Your task to perform on an android device: open device folders in google photos Image 0: 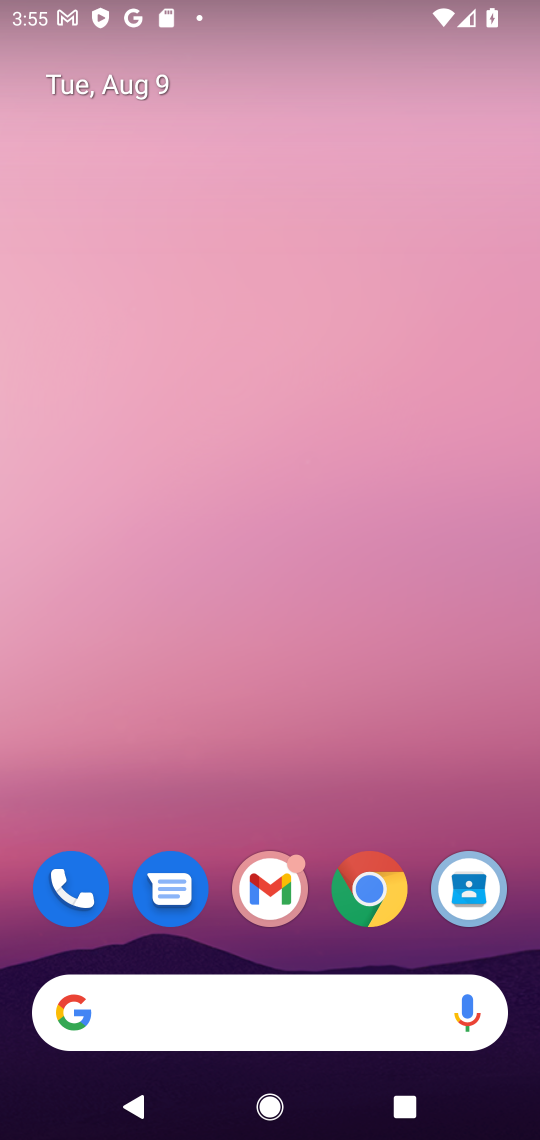
Step 0: drag from (278, 760) to (305, 0)
Your task to perform on an android device: open device folders in google photos Image 1: 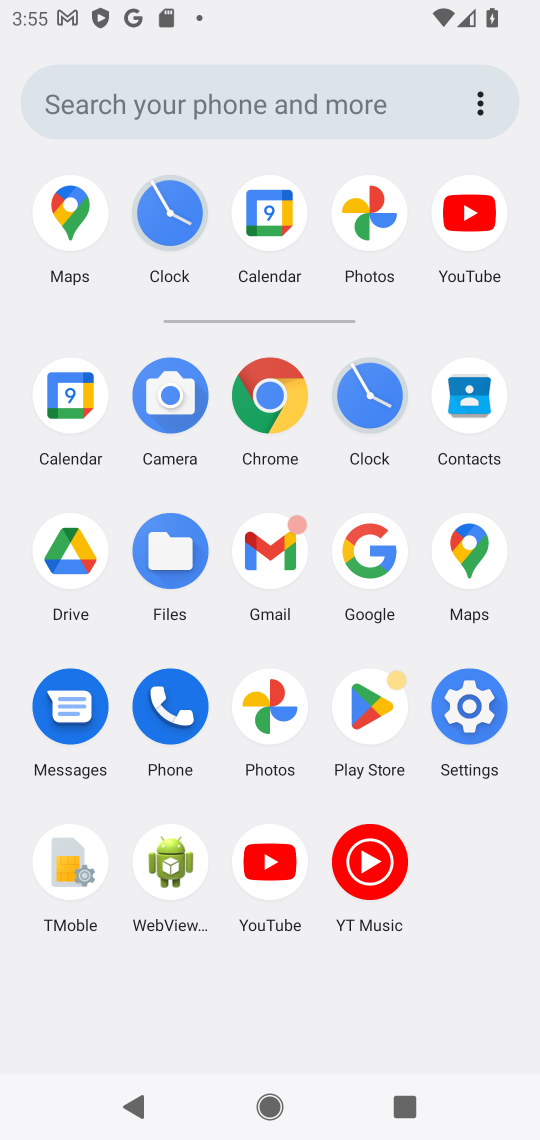
Step 1: click (365, 200)
Your task to perform on an android device: open device folders in google photos Image 2: 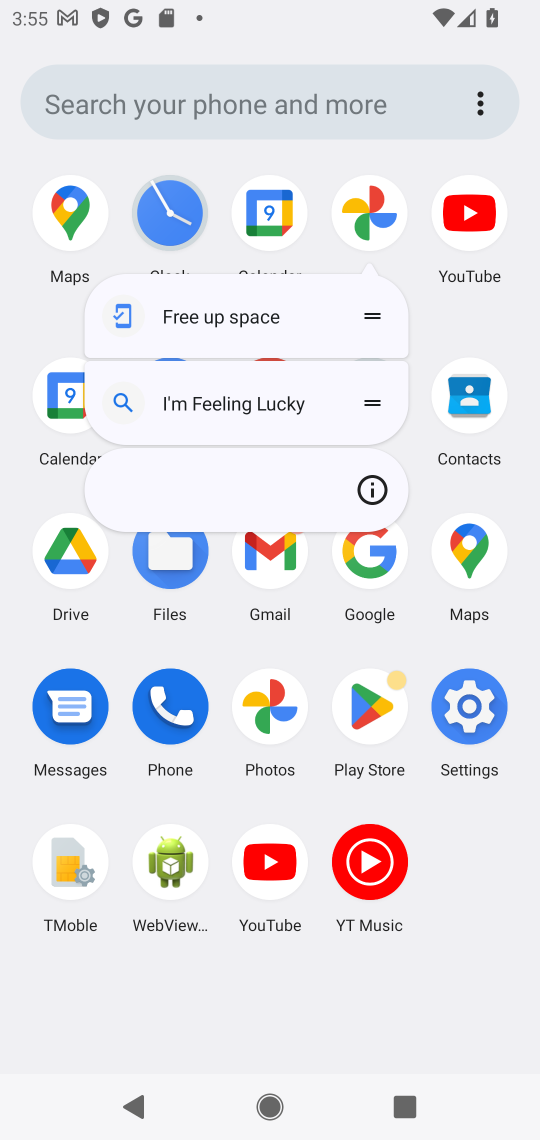
Step 2: click (365, 197)
Your task to perform on an android device: open device folders in google photos Image 3: 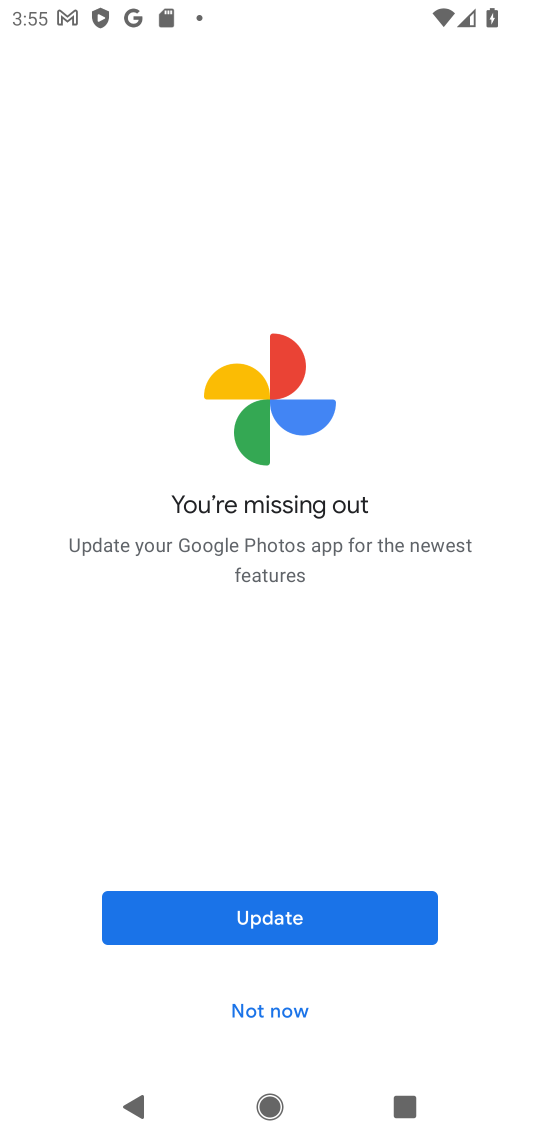
Step 3: click (287, 1005)
Your task to perform on an android device: open device folders in google photos Image 4: 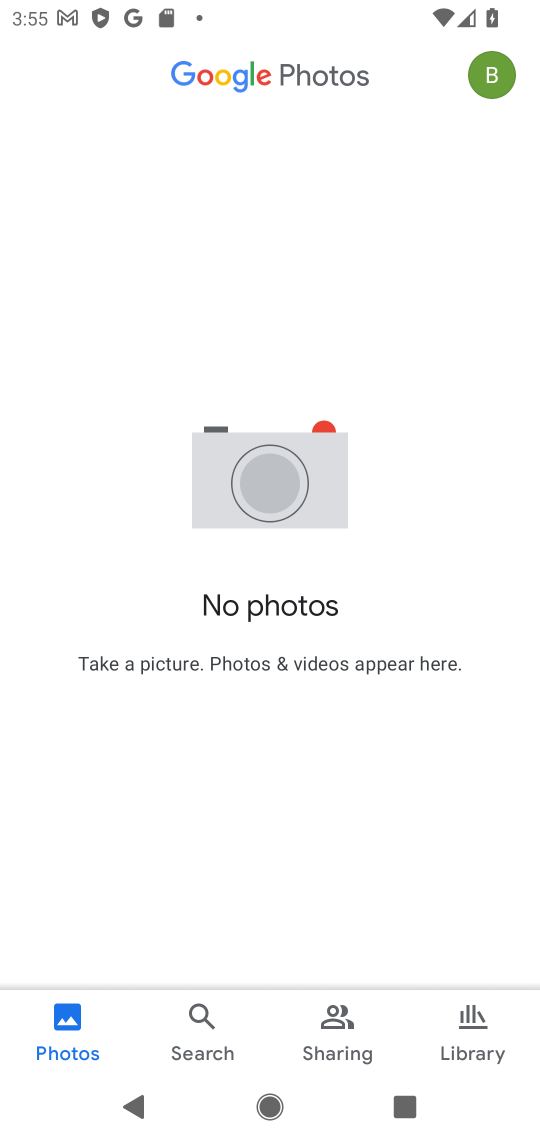
Step 4: click (500, 77)
Your task to perform on an android device: open device folders in google photos Image 5: 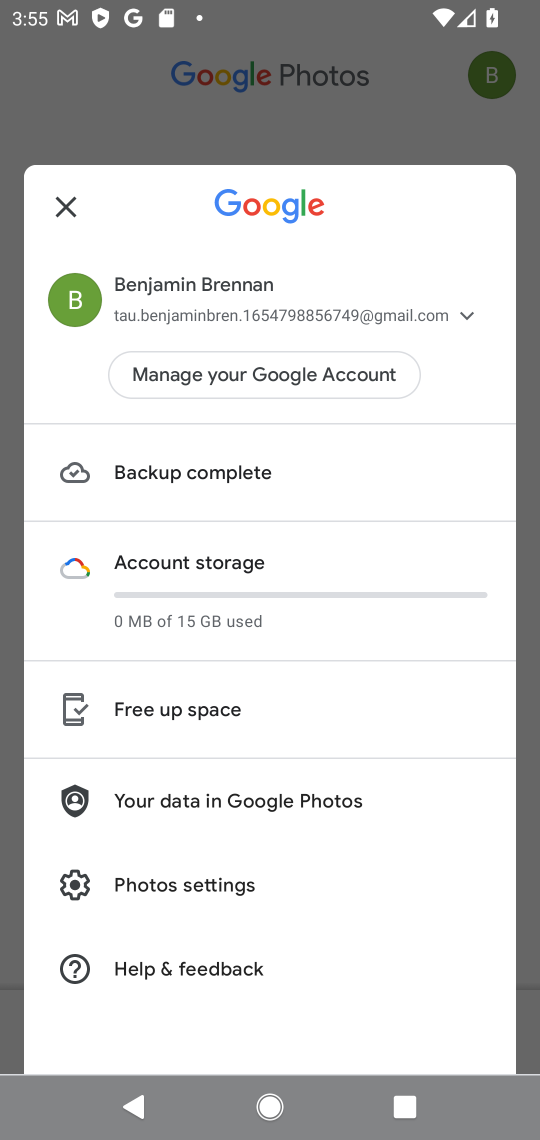
Step 5: click (67, 195)
Your task to perform on an android device: open device folders in google photos Image 6: 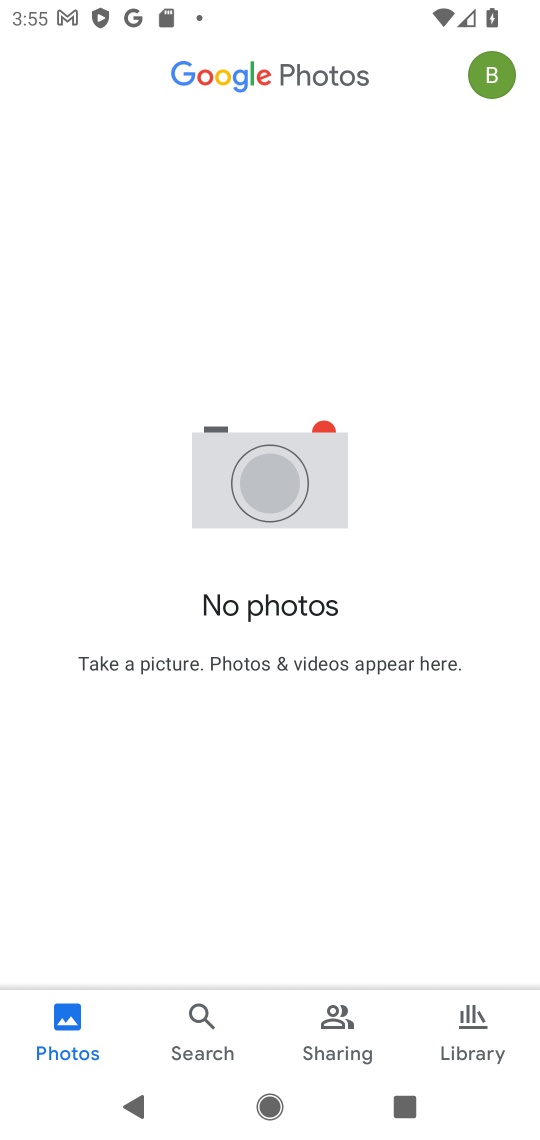
Step 6: click (198, 1013)
Your task to perform on an android device: open device folders in google photos Image 7: 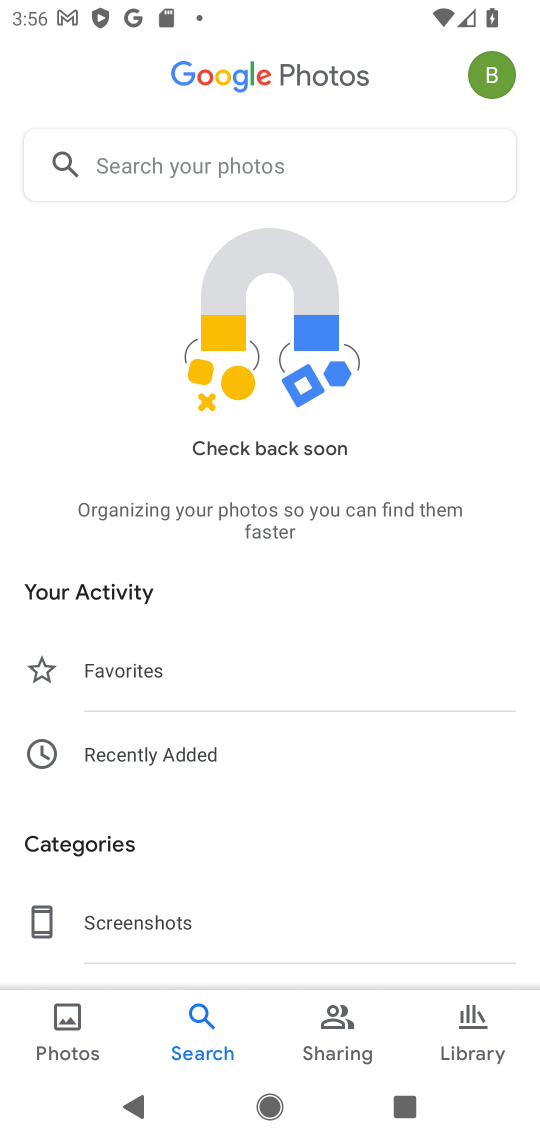
Step 7: type "device folder"
Your task to perform on an android device: open device folders in google photos Image 8: 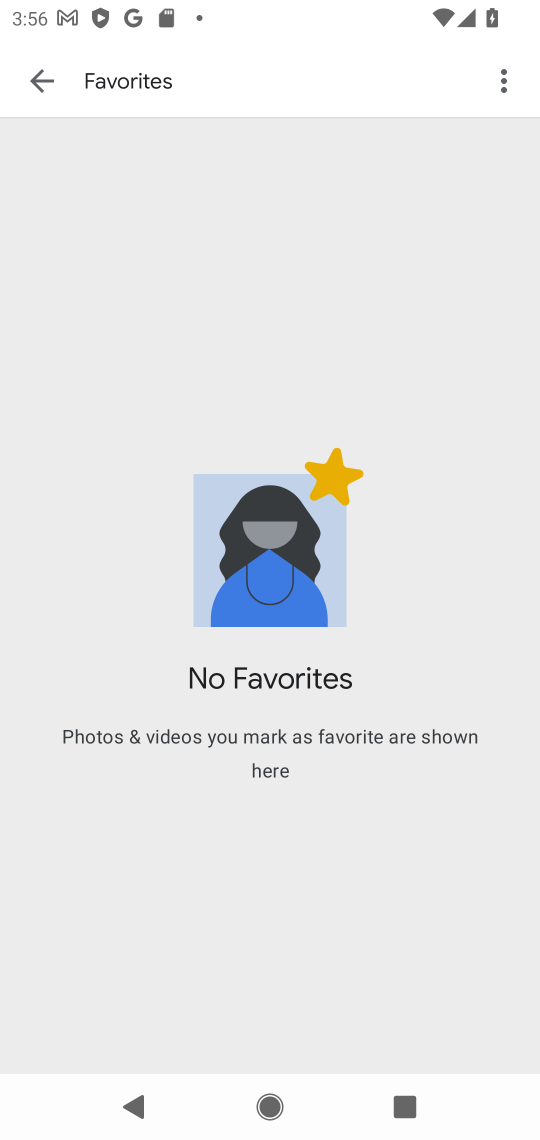
Step 8: click (44, 72)
Your task to perform on an android device: open device folders in google photos Image 9: 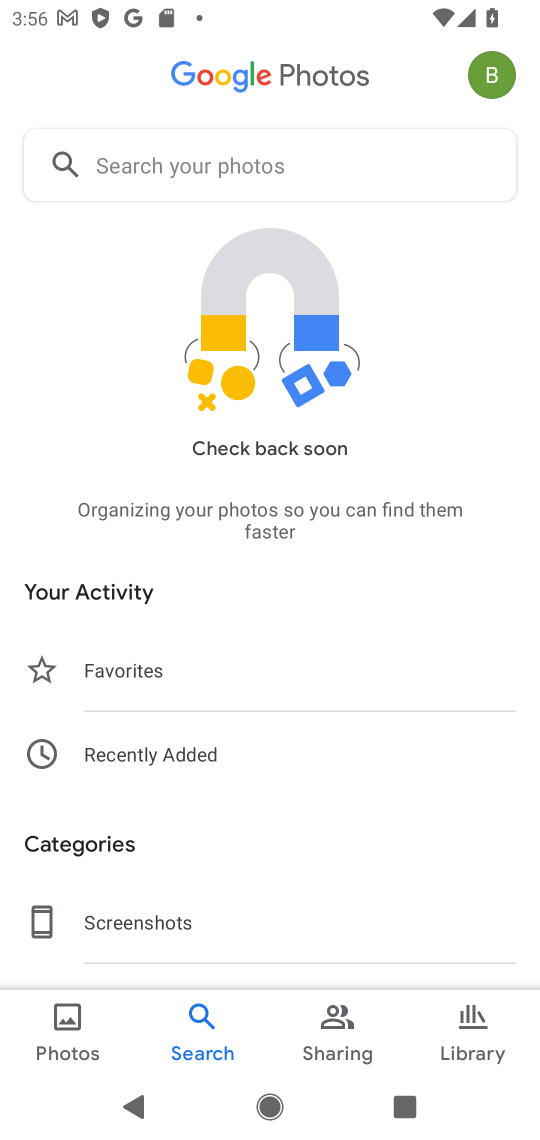
Step 9: click (189, 156)
Your task to perform on an android device: open device folders in google photos Image 10: 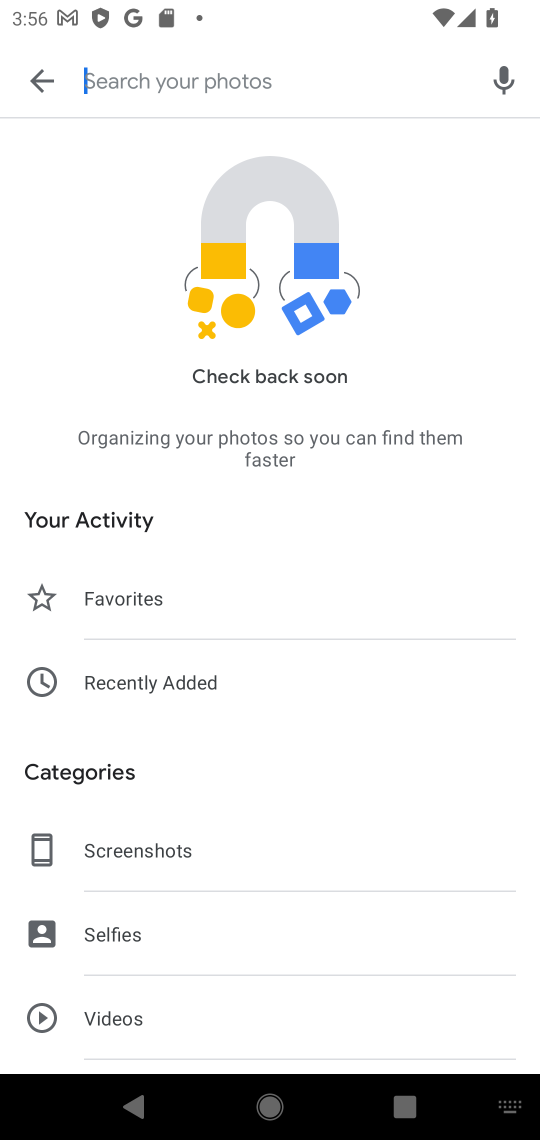
Step 10: drag from (358, 790) to (374, 138)
Your task to perform on an android device: open device folders in google photos Image 11: 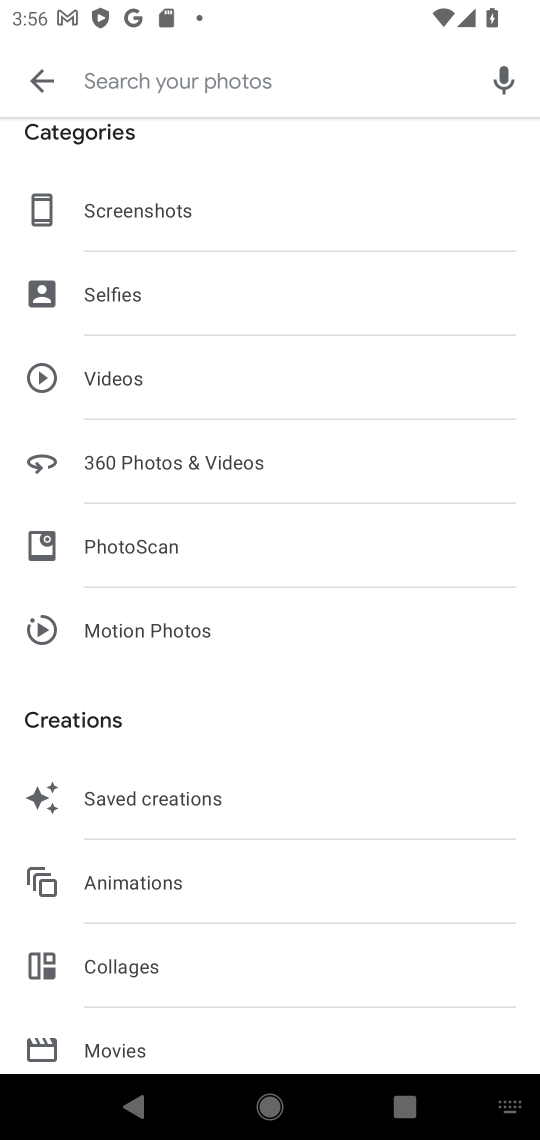
Step 11: drag from (314, 878) to (366, 241)
Your task to perform on an android device: open device folders in google photos Image 12: 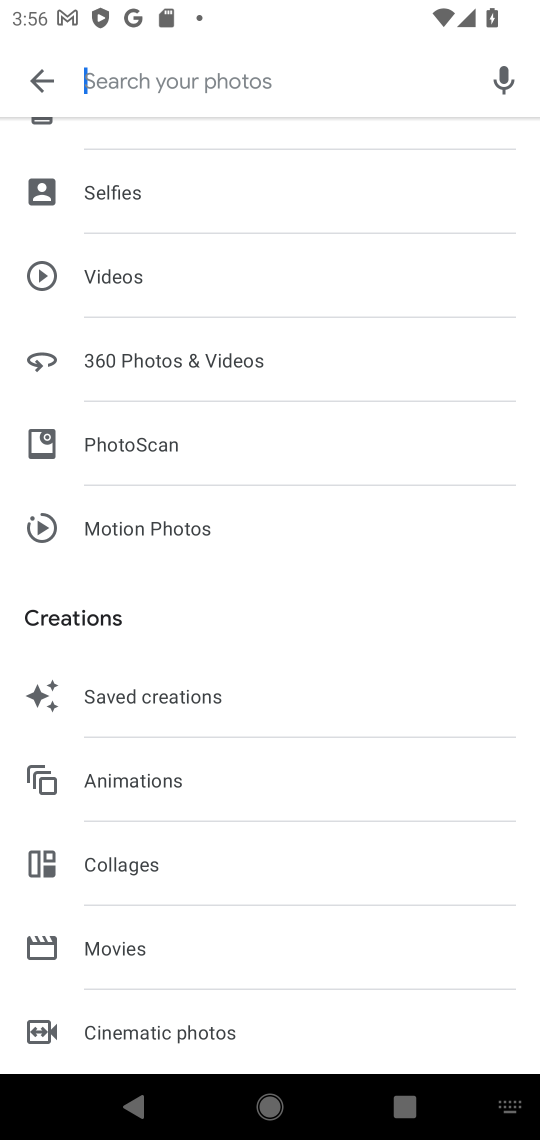
Step 12: drag from (333, 276) to (292, 933)
Your task to perform on an android device: open device folders in google photos Image 13: 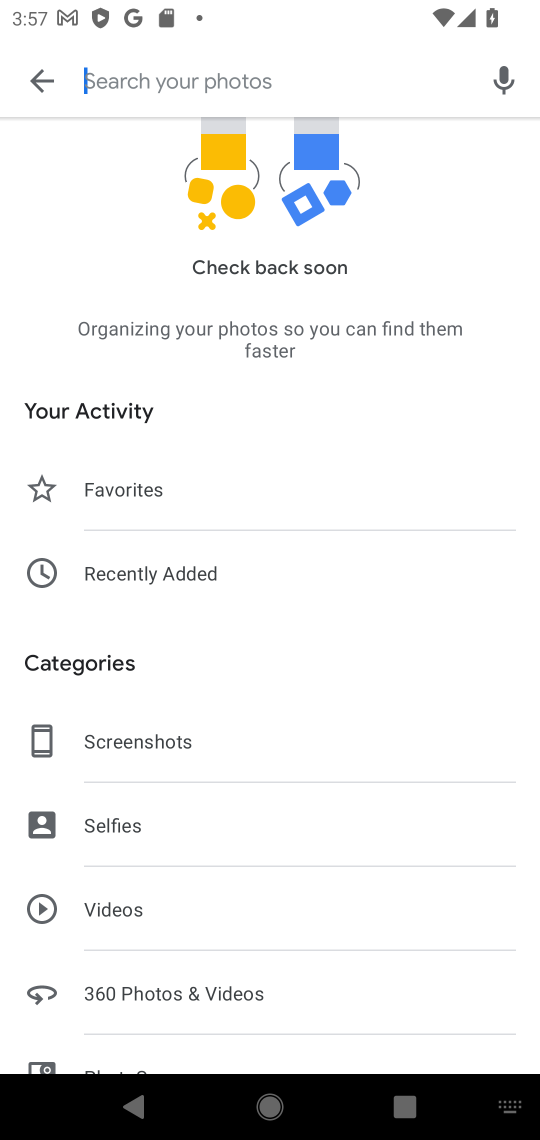
Step 13: type "device folder"
Your task to perform on an android device: open device folders in google photos Image 14: 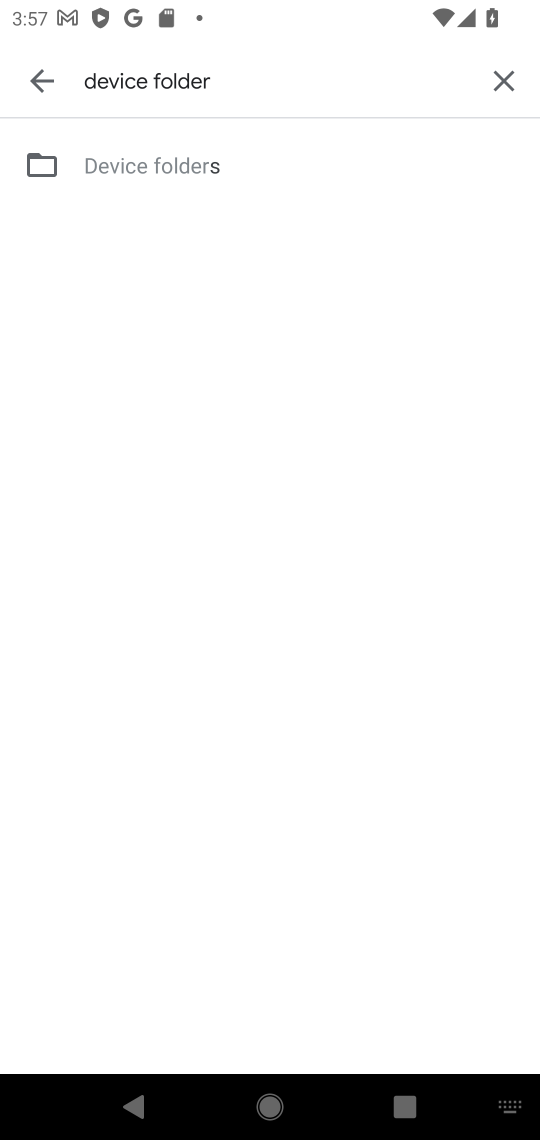
Step 14: click (207, 165)
Your task to perform on an android device: open device folders in google photos Image 15: 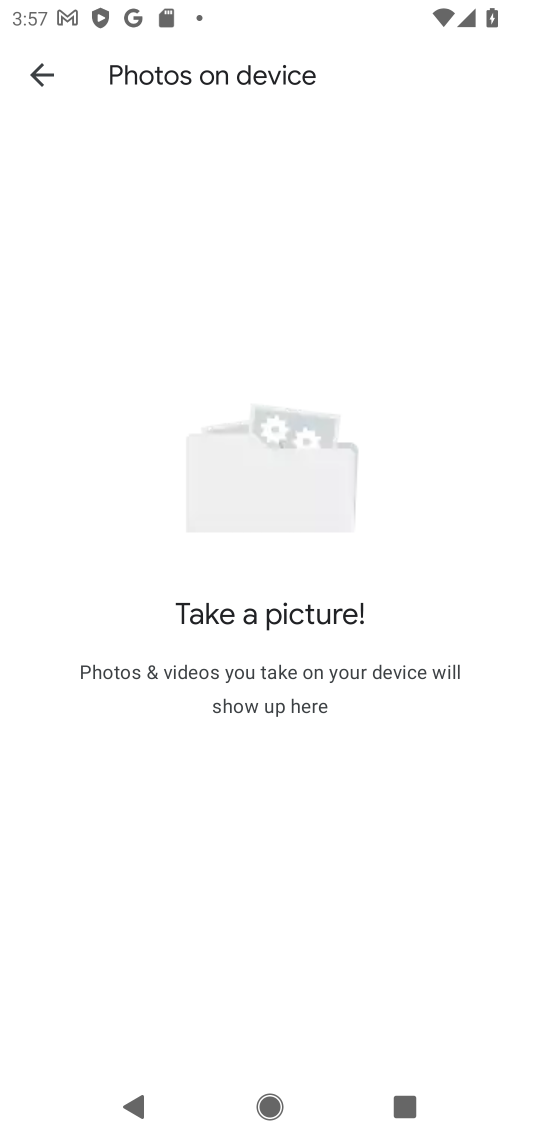
Step 15: task complete